Your task to perform on an android device: Show me recent news Image 0: 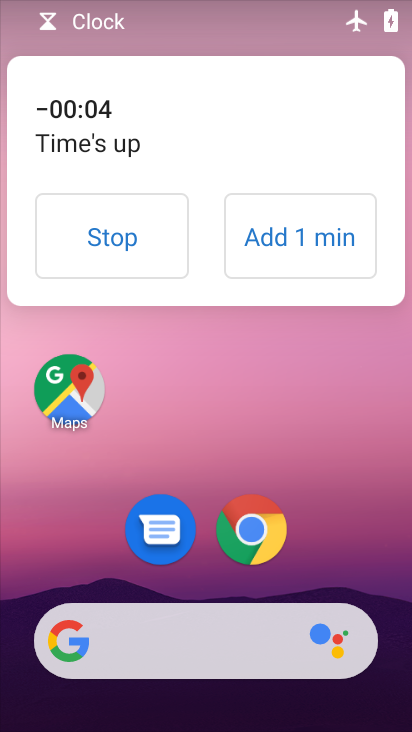
Step 0: click (156, 257)
Your task to perform on an android device: Show me recent news Image 1: 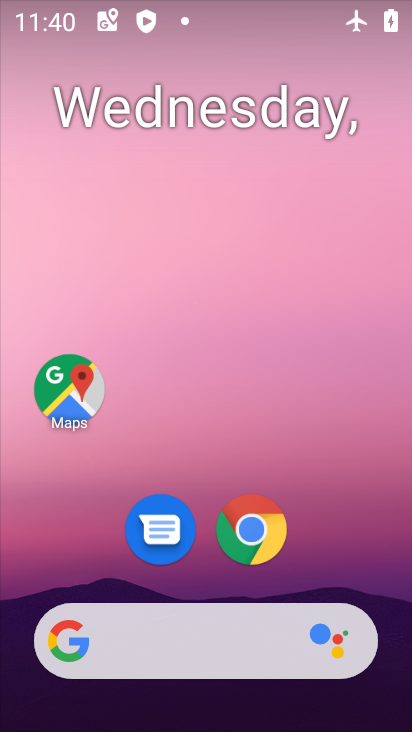
Step 1: drag from (220, 592) to (336, 37)
Your task to perform on an android device: Show me recent news Image 2: 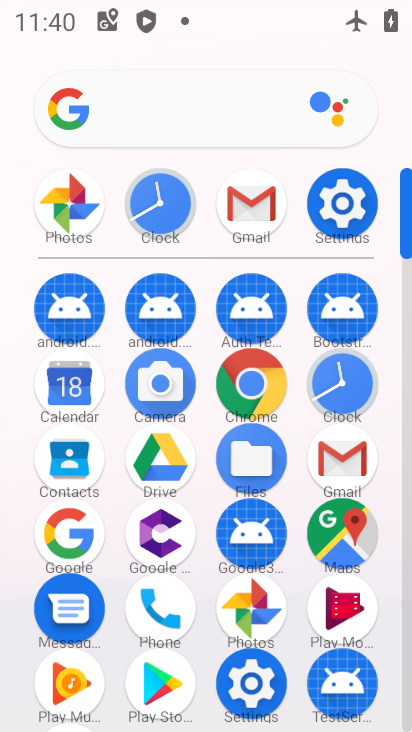
Step 2: click (78, 533)
Your task to perform on an android device: Show me recent news Image 3: 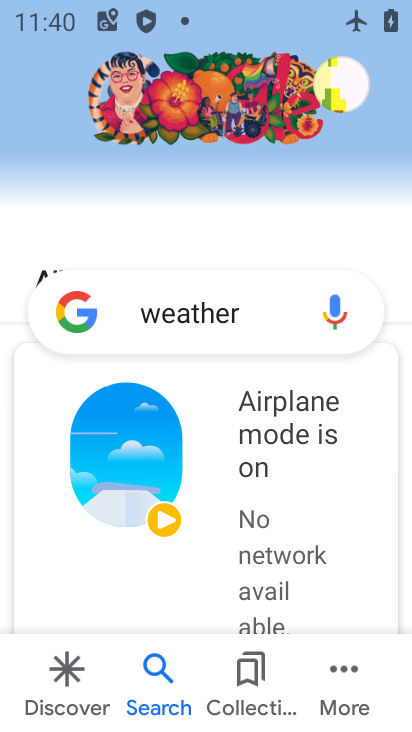
Step 3: click (180, 324)
Your task to perform on an android device: Show me recent news Image 4: 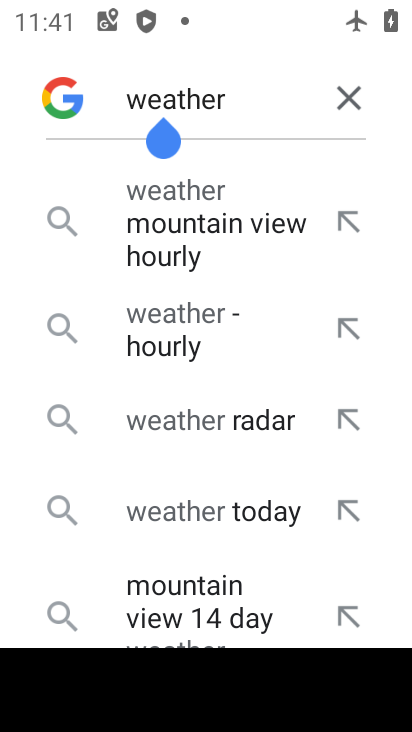
Step 4: click (340, 97)
Your task to perform on an android device: Show me recent news Image 5: 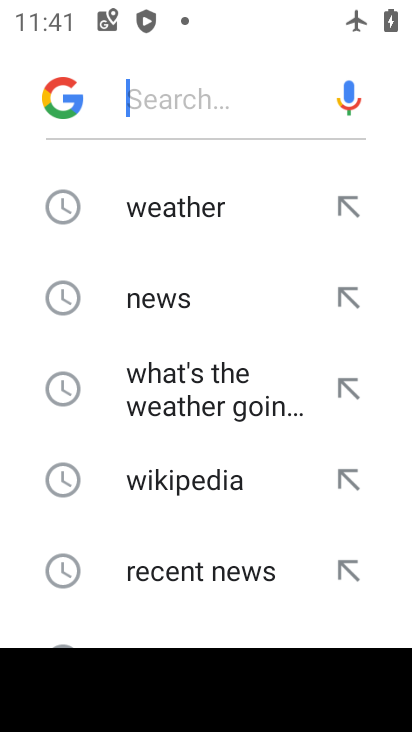
Step 5: click (177, 299)
Your task to perform on an android device: Show me recent news Image 6: 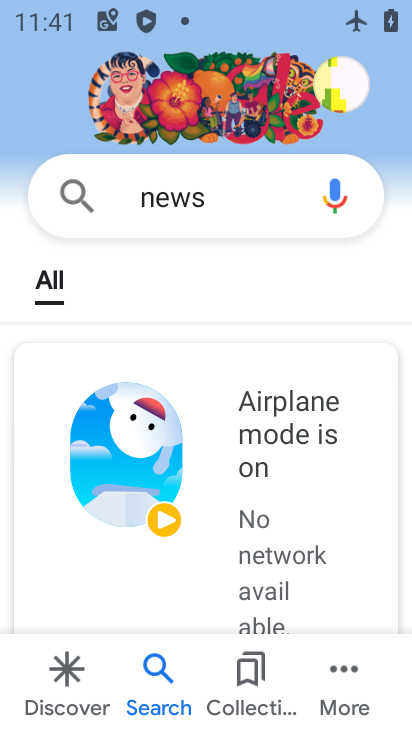
Step 6: task complete